Your task to perform on an android device: Search for vegetarian restaurants on Maps Image 0: 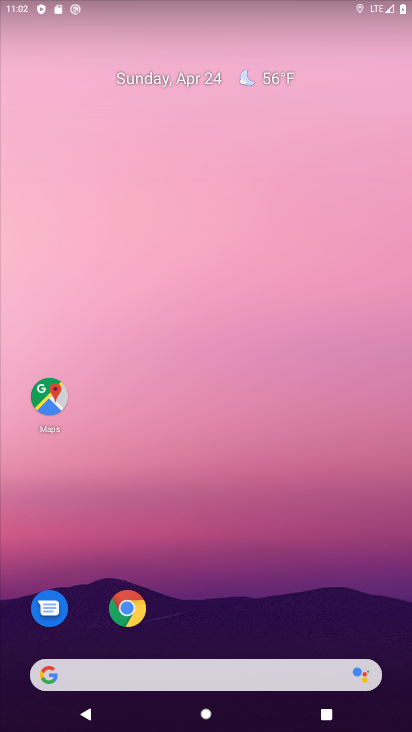
Step 0: drag from (215, 619) to (192, 102)
Your task to perform on an android device: Search for vegetarian restaurants on Maps Image 1: 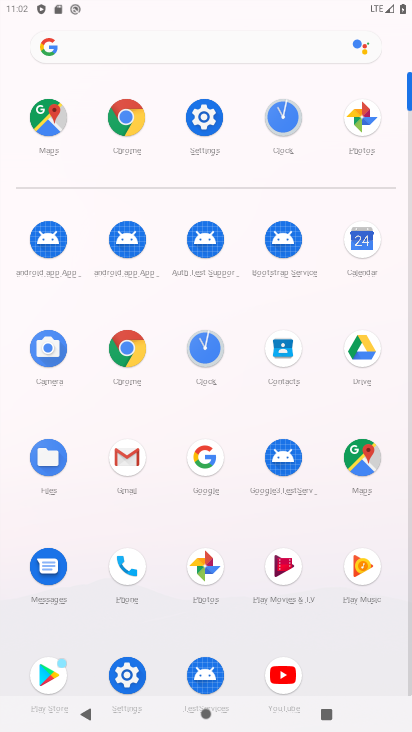
Step 1: click (362, 457)
Your task to perform on an android device: Search for vegetarian restaurants on Maps Image 2: 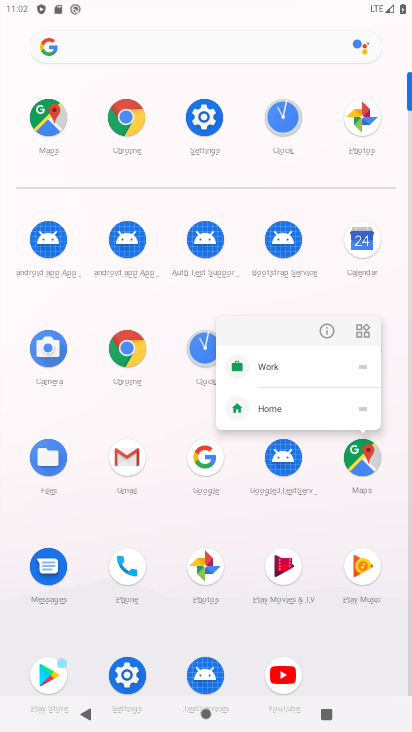
Step 2: click (355, 471)
Your task to perform on an android device: Search for vegetarian restaurants on Maps Image 3: 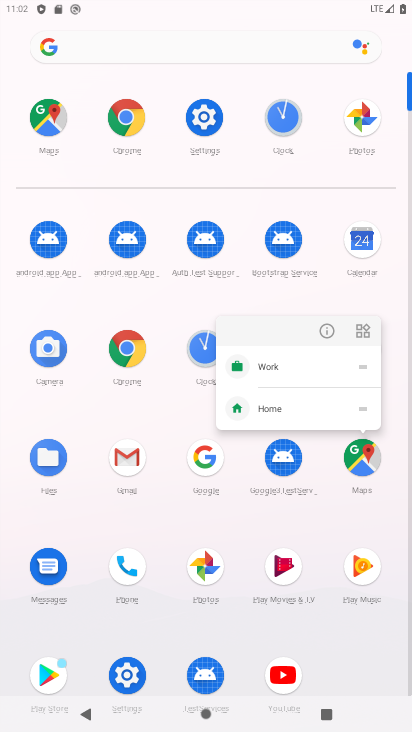
Step 3: click (363, 472)
Your task to perform on an android device: Search for vegetarian restaurants on Maps Image 4: 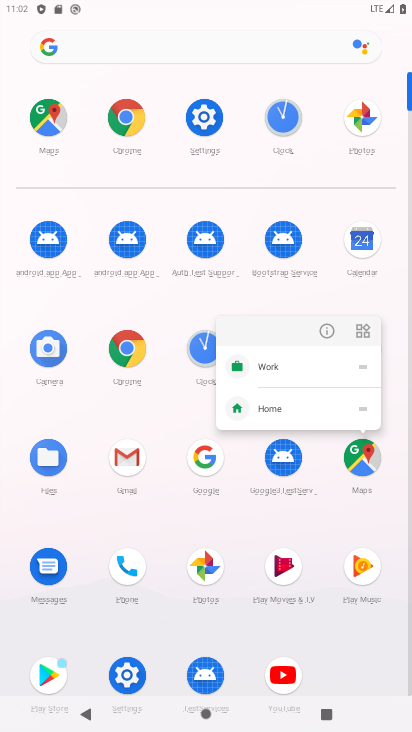
Step 4: click (361, 477)
Your task to perform on an android device: Search for vegetarian restaurants on Maps Image 5: 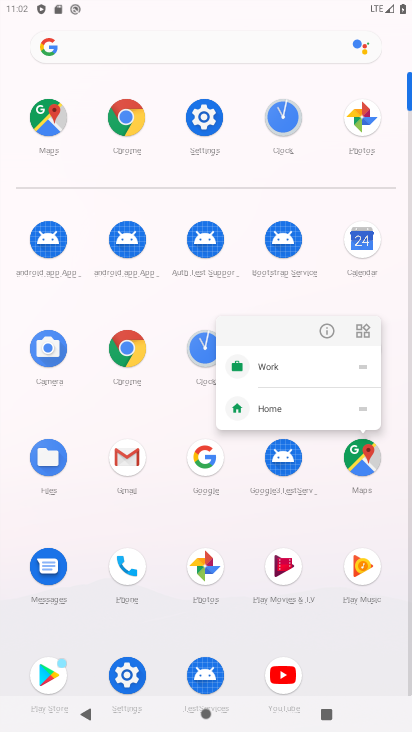
Step 5: click (360, 475)
Your task to perform on an android device: Search for vegetarian restaurants on Maps Image 6: 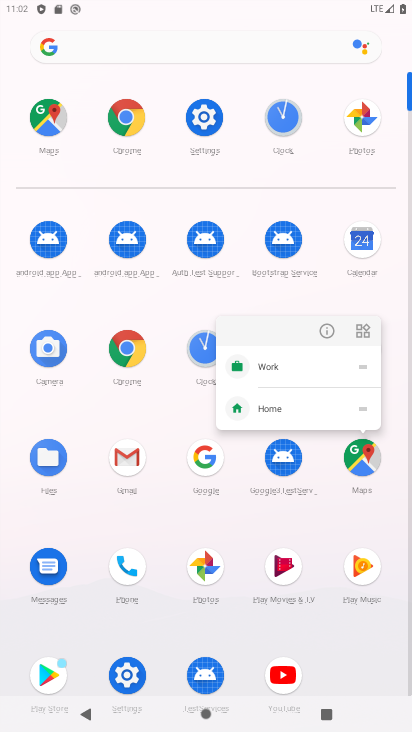
Step 6: click (360, 475)
Your task to perform on an android device: Search for vegetarian restaurants on Maps Image 7: 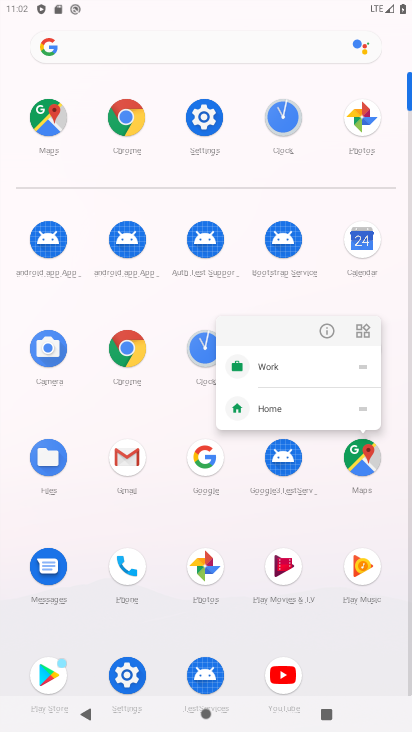
Step 7: click (359, 473)
Your task to perform on an android device: Search for vegetarian restaurants on Maps Image 8: 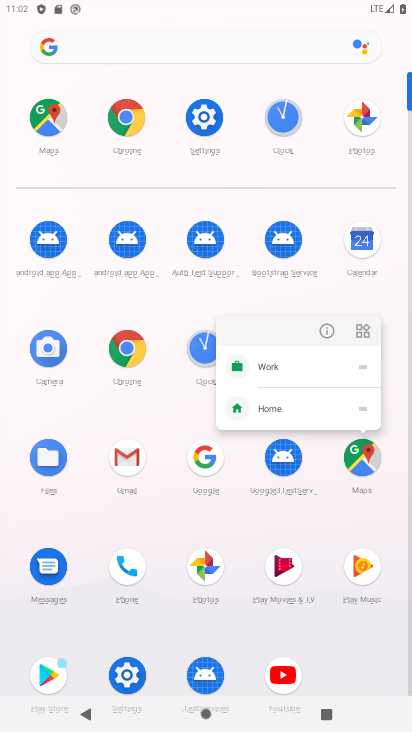
Step 8: click (360, 455)
Your task to perform on an android device: Search for vegetarian restaurants on Maps Image 9: 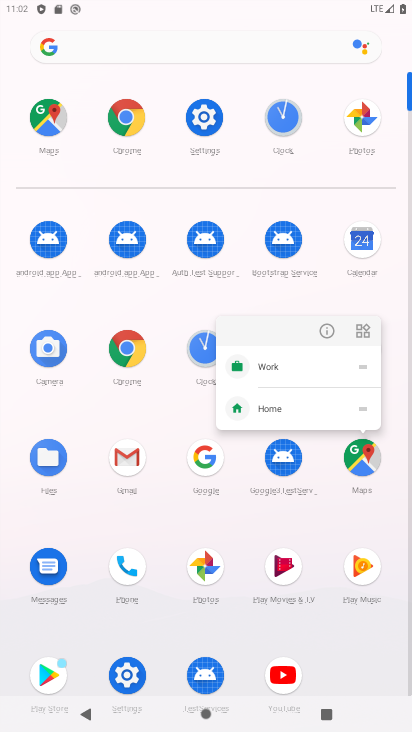
Step 9: click (356, 458)
Your task to perform on an android device: Search for vegetarian restaurants on Maps Image 10: 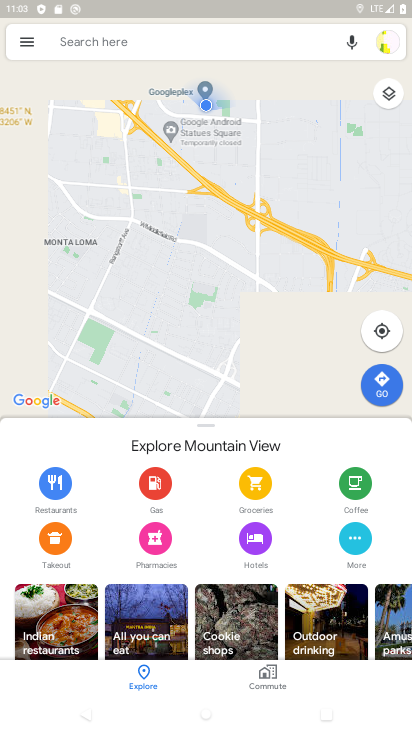
Step 10: click (193, 37)
Your task to perform on an android device: Search for vegetarian restaurants on Maps Image 11: 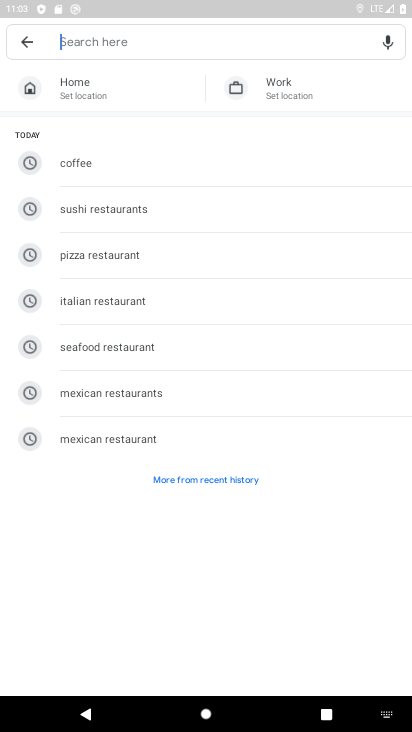
Step 11: type "vegetarian"
Your task to perform on an android device: Search for vegetarian restaurants on Maps Image 12: 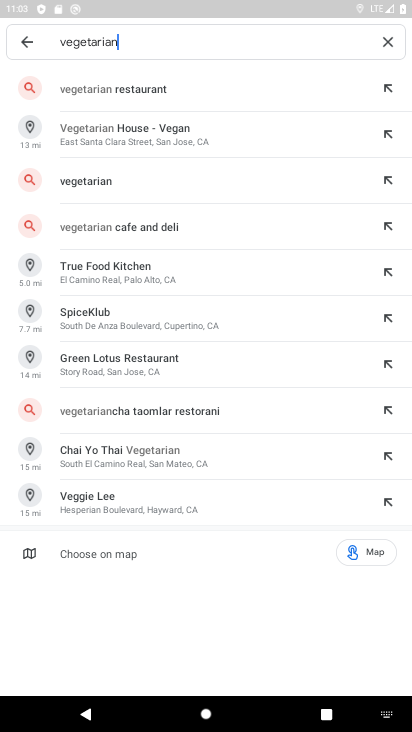
Step 12: click (228, 91)
Your task to perform on an android device: Search for vegetarian restaurants on Maps Image 13: 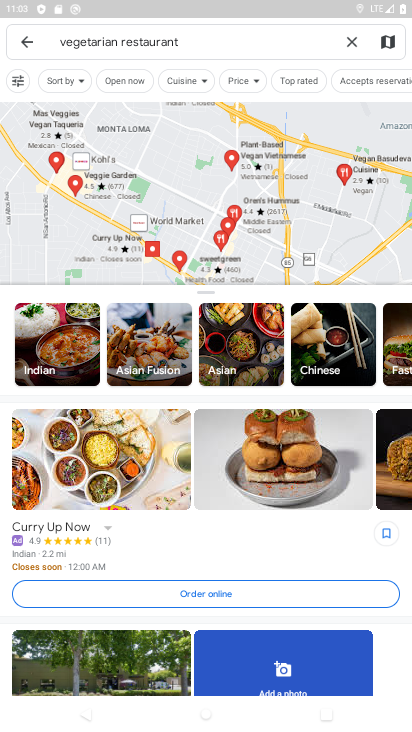
Step 13: task complete